Your task to perform on an android device: set the stopwatch Image 0: 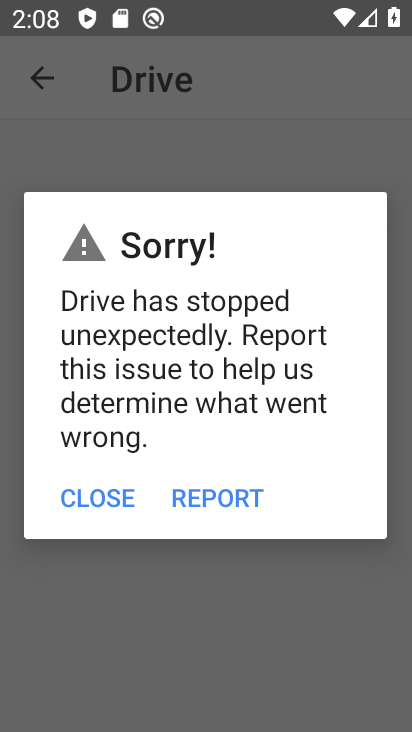
Step 0: press home button
Your task to perform on an android device: set the stopwatch Image 1: 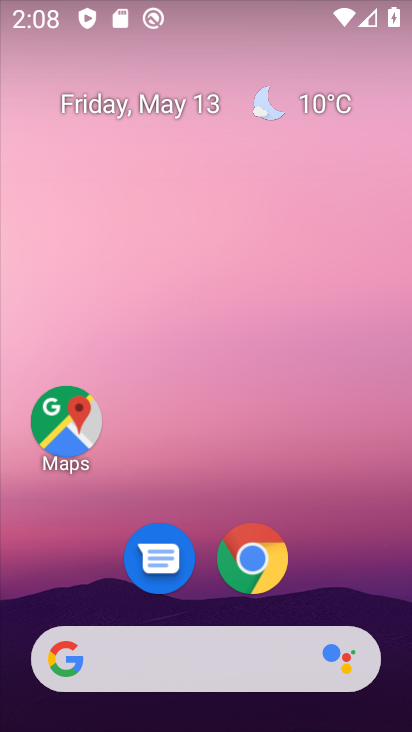
Step 1: drag from (205, 593) to (195, 240)
Your task to perform on an android device: set the stopwatch Image 2: 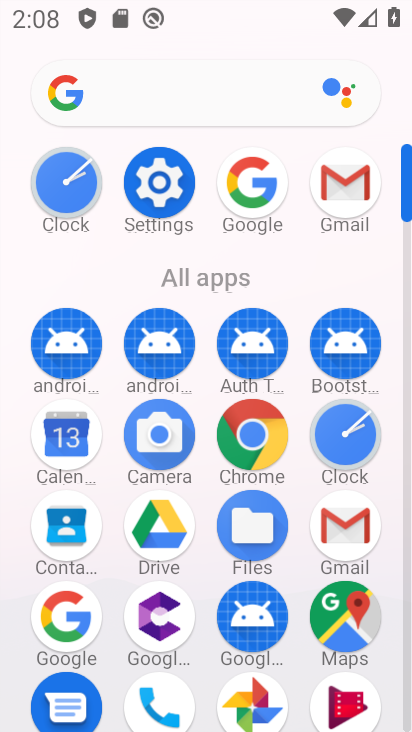
Step 2: click (364, 425)
Your task to perform on an android device: set the stopwatch Image 3: 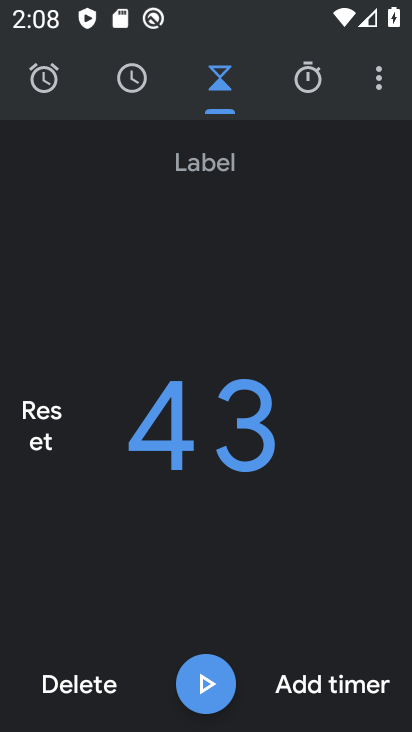
Step 3: click (305, 78)
Your task to perform on an android device: set the stopwatch Image 4: 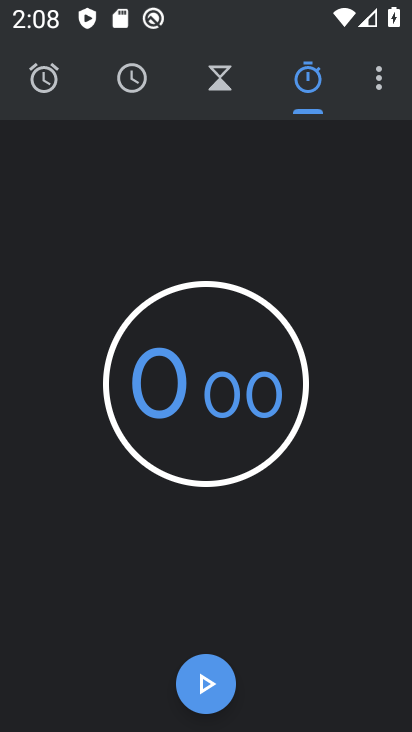
Step 4: click (194, 674)
Your task to perform on an android device: set the stopwatch Image 5: 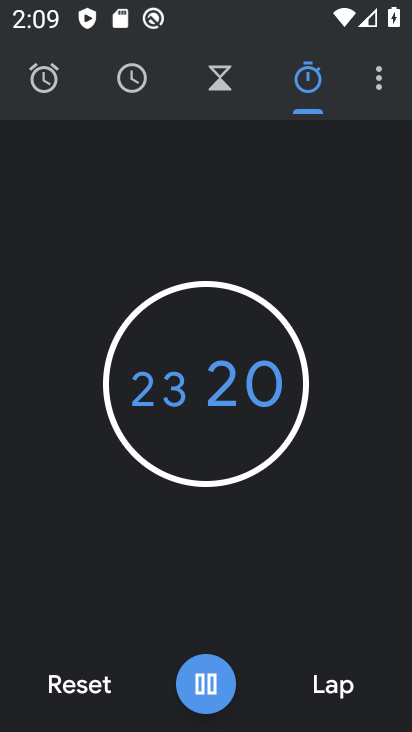
Step 5: task complete